Your task to perform on an android device: Show me productivity apps on the Play Store Image 0: 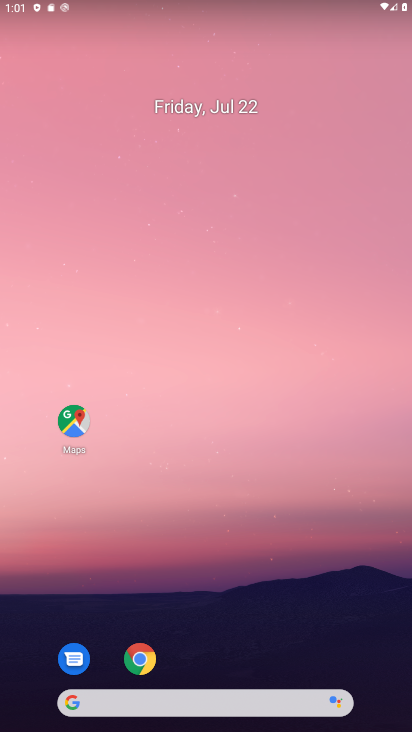
Step 0: drag from (181, 659) to (273, 129)
Your task to perform on an android device: Show me productivity apps on the Play Store Image 1: 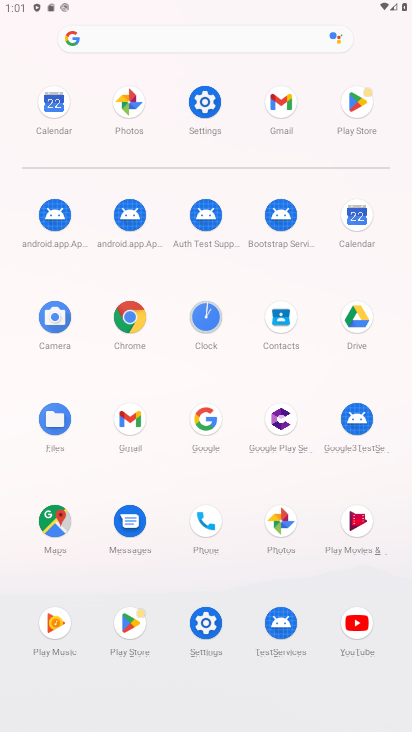
Step 1: click (368, 99)
Your task to perform on an android device: Show me productivity apps on the Play Store Image 2: 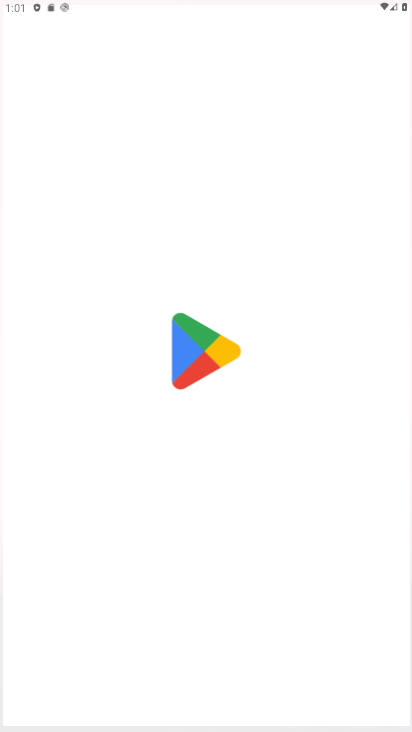
Step 2: task complete